Your task to perform on an android device: open chrome and create a bookmark for the current page Image 0: 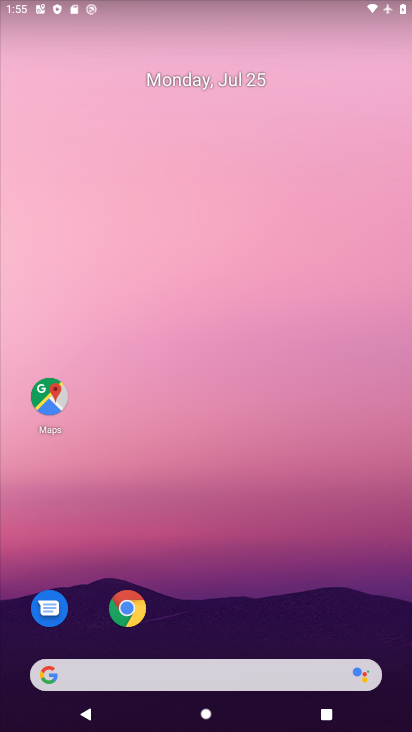
Step 0: drag from (135, 695) to (161, 190)
Your task to perform on an android device: open chrome and create a bookmark for the current page Image 1: 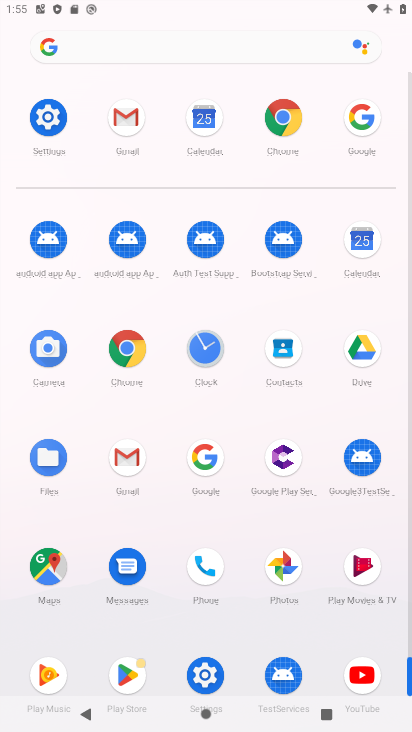
Step 1: click (297, 113)
Your task to perform on an android device: open chrome and create a bookmark for the current page Image 2: 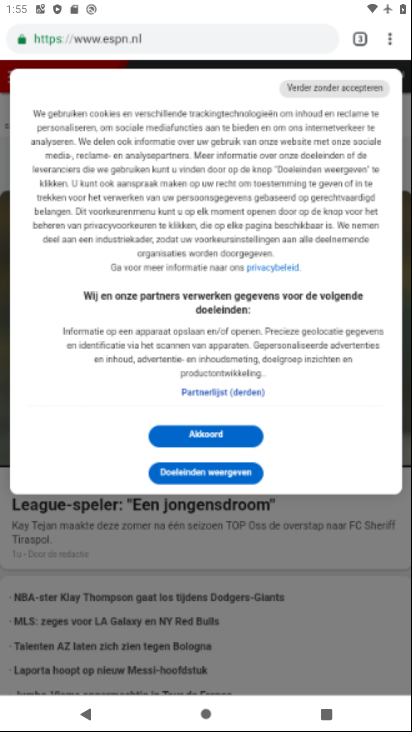
Step 2: click (279, 133)
Your task to perform on an android device: open chrome and create a bookmark for the current page Image 3: 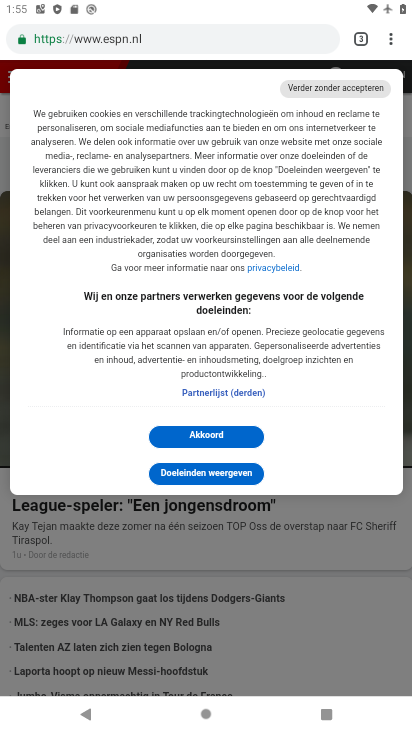
Step 3: click (391, 35)
Your task to perform on an android device: open chrome and create a bookmark for the current page Image 4: 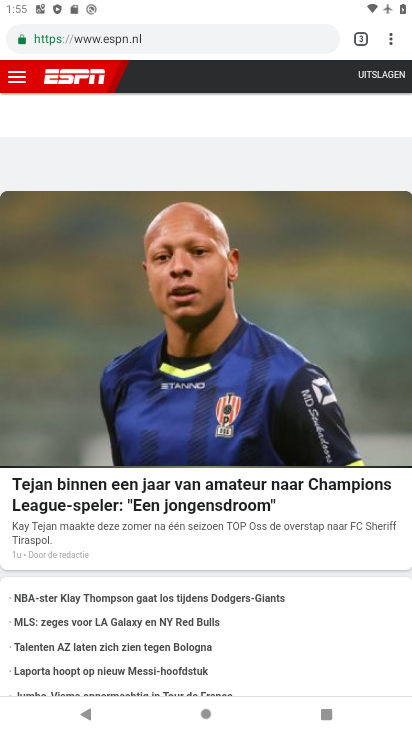
Step 4: click (391, 40)
Your task to perform on an android device: open chrome and create a bookmark for the current page Image 5: 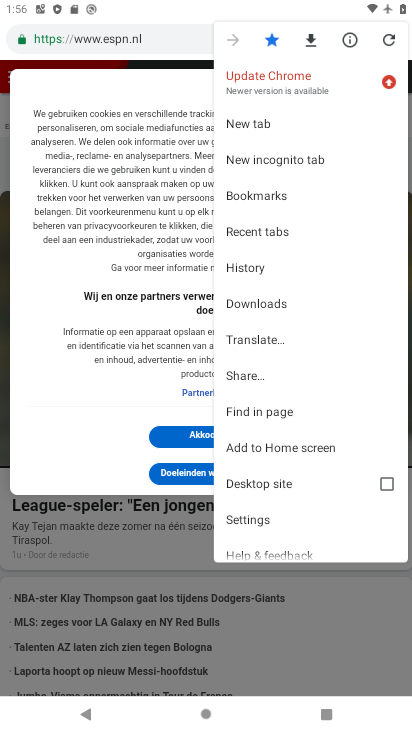
Step 5: task complete